Your task to perform on an android device: Go to notification settings Image 0: 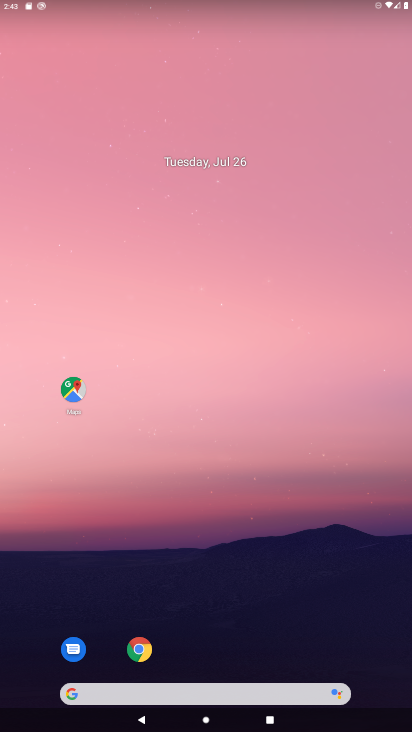
Step 0: drag from (196, 691) to (159, 161)
Your task to perform on an android device: Go to notification settings Image 1: 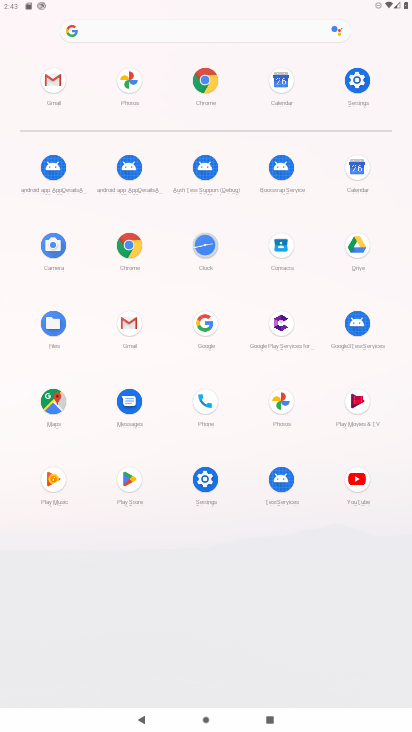
Step 1: click (202, 480)
Your task to perform on an android device: Go to notification settings Image 2: 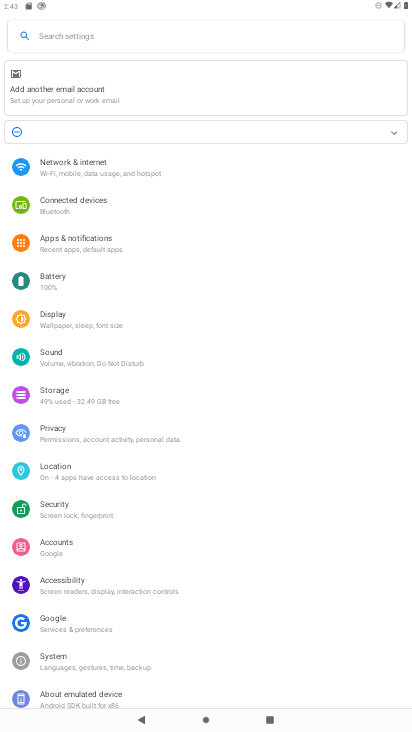
Step 2: click (91, 239)
Your task to perform on an android device: Go to notification settings Image 3: 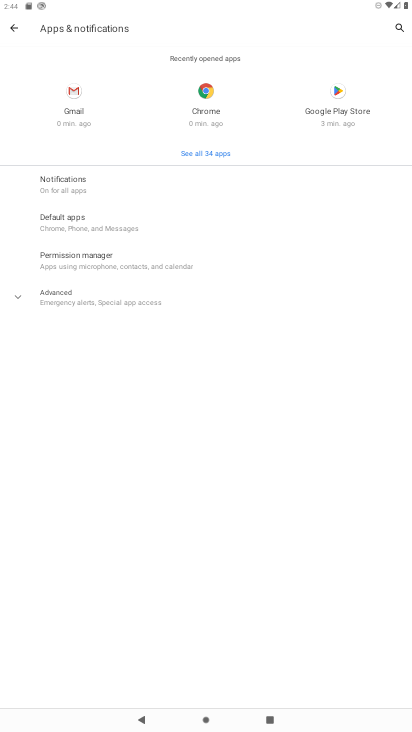
Step 3: task complete